Your task to perform on an android device: Is it going to rain today? Image 0: 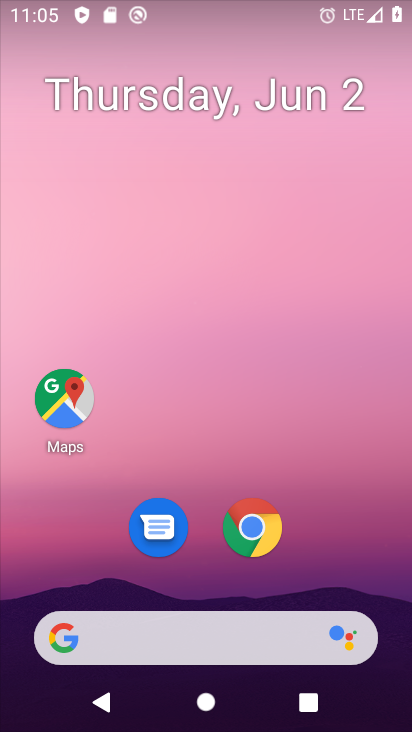
Step 0: drag from (158, 629) to (183, 177)
Your task to perform on an android device: Is it going to rain today? Image 1: 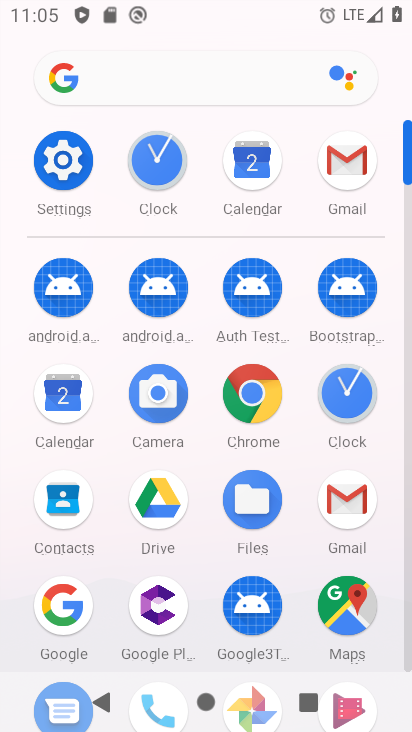
Step 1: click (70, 614)
Your task to perform on an android device: Is it going to rain today? Image 2: 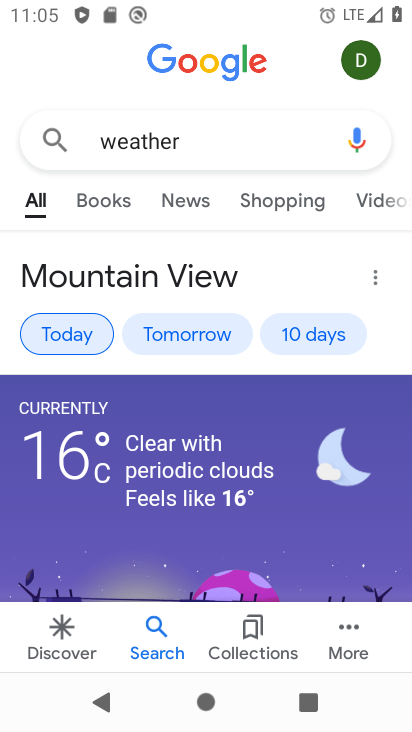
Step 2: task complete